Your task to perform on an android device: Open Maps and search for coffee Image 0: 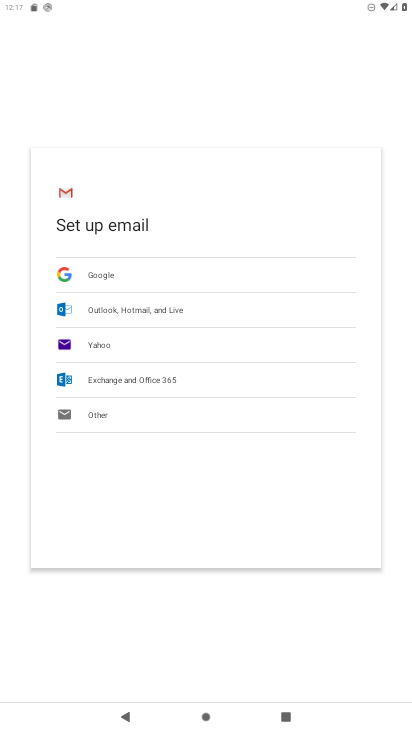
Step 0: press home button
Your task to perform on an android device: Open Maps and search for coffee Image 1: 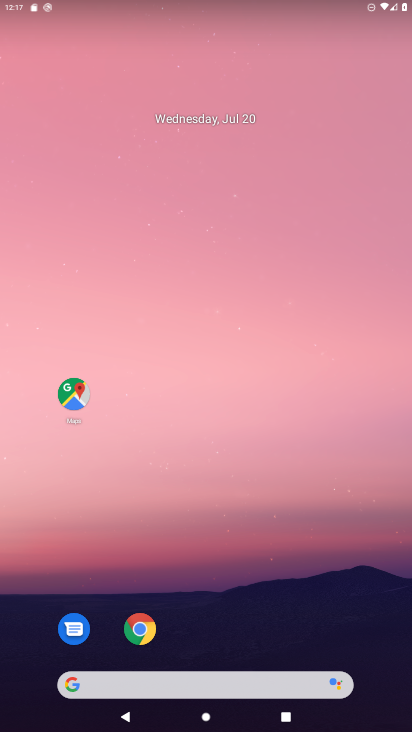
Step 1: click (80, 400)
Your task to perform on an android device: Open Maps and search for coffee Image 2: 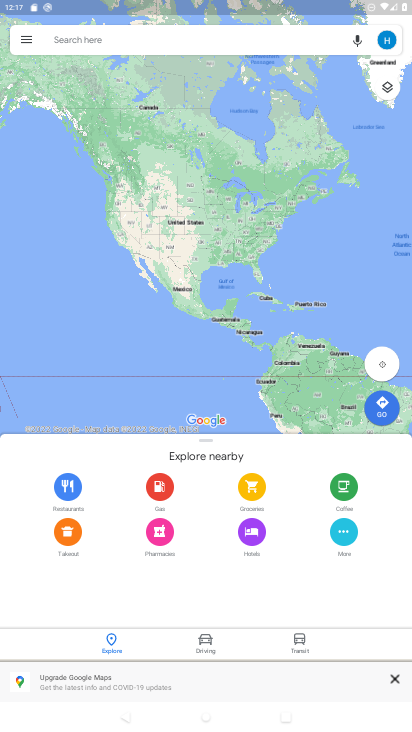
Step 2: click (141, 31)
Your task to perform on an android device: Open Maps and search for coffee Image 3: 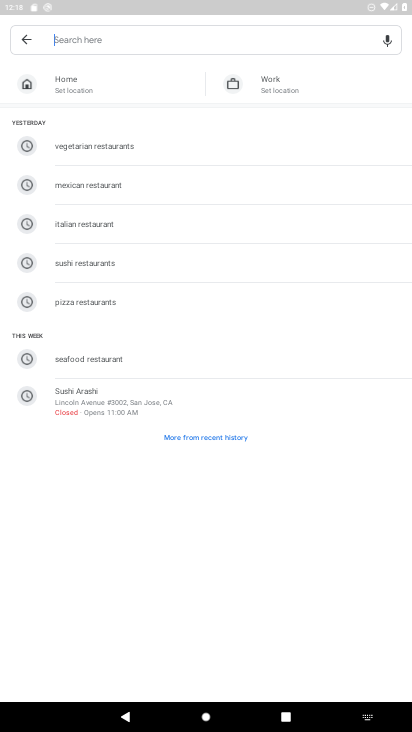
Step 3: type "coffee"
Your task to perform on an android device: Open Maps and search for coffee Image 4: 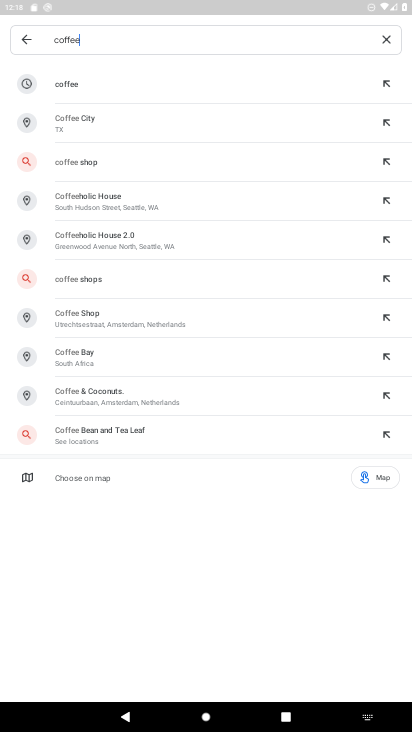
Step 4: click (61, 84)
Your task to perform on an android device: Open Maps and search for coffee Image 5: 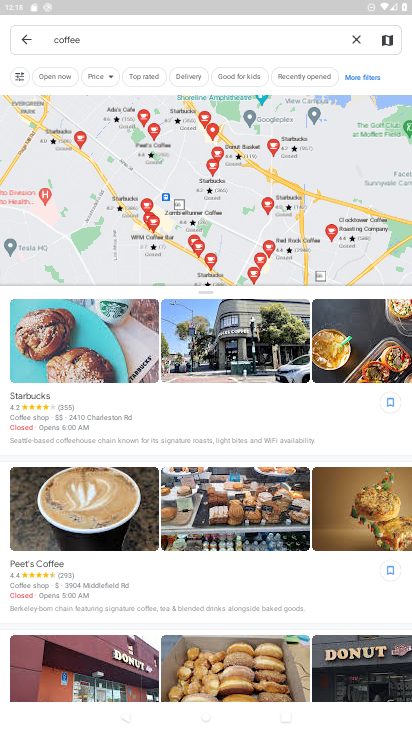
Step 5: task complete